Your task to perform on an android device: Open CNN.com Image 0: 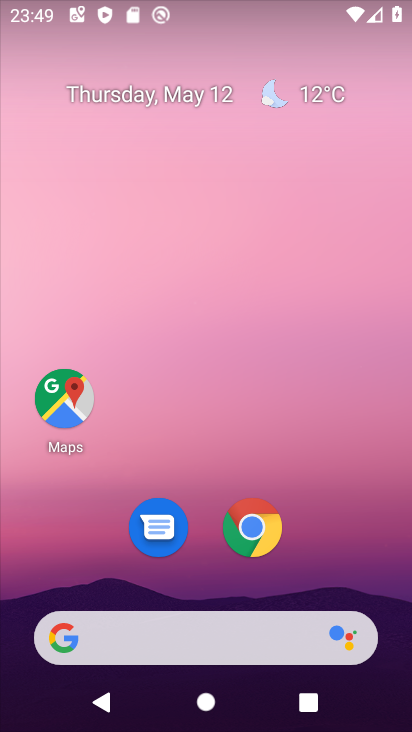
Step 0: press home button
Your task to perform on an android device: Open CNN.com Image 1: 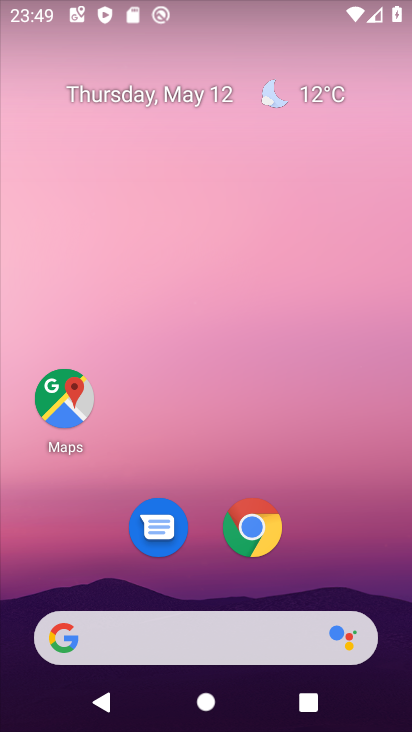
Step 1: click (208, 652)
Your task to perform on an android device: Open CNN.com Image 2: 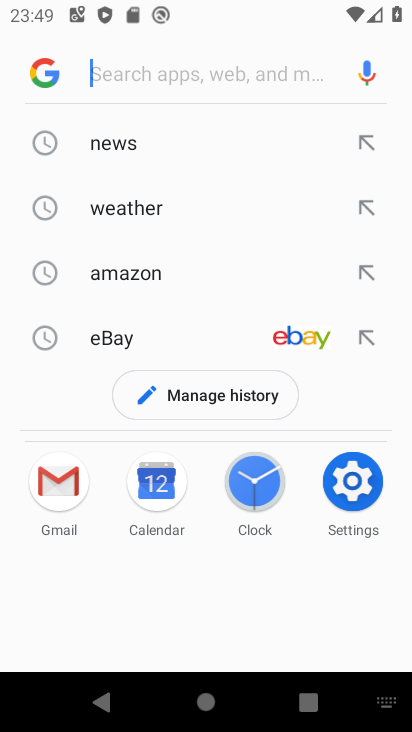
Step 2: click (149, 58)
Your task to perform on an android device: Open CNN.com Image 3: 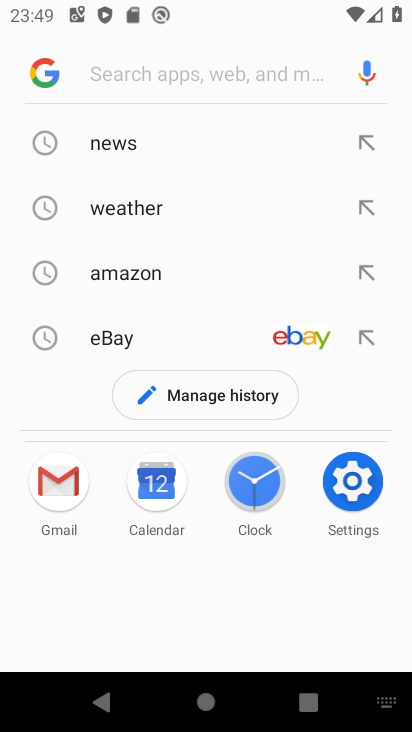
Step 3: click (149, 58)
Your task to perform on an android device: Open CNN.com Image 4: 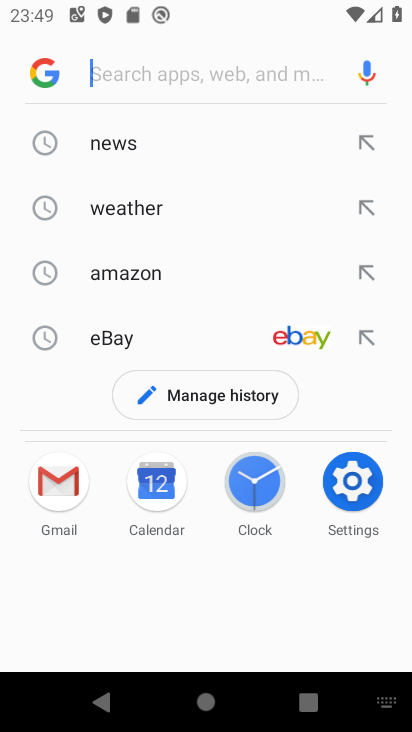
Step 4: press home button
Your task to perform on an android device: Open CNN.com Image 5: 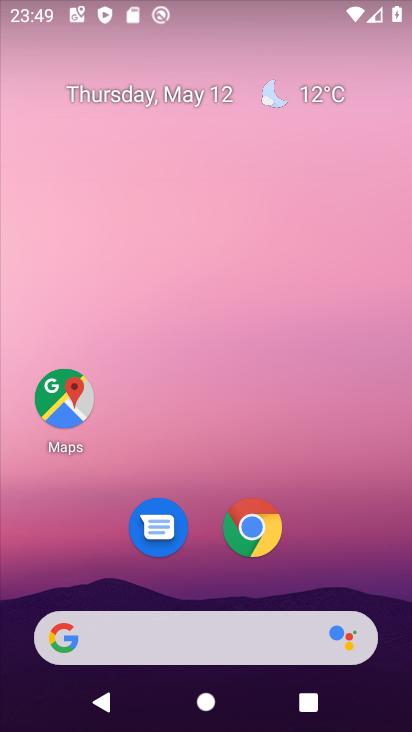
Step 5: click (257, 524)
Your task to perform on an android device: Open CNN.com Image 6: 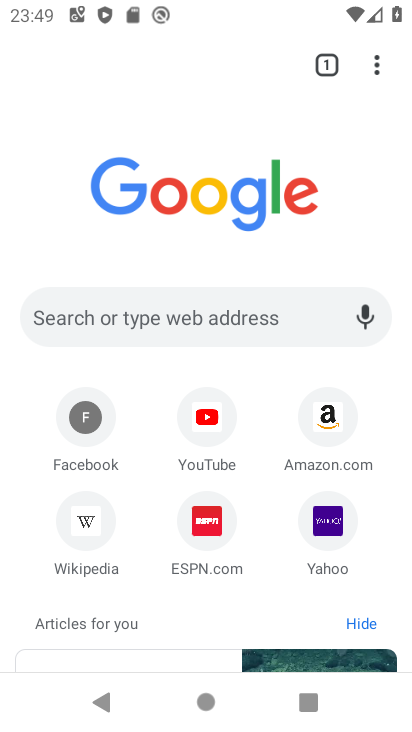
Step 6: click (163, 308)
Your task to perform on an android device: Open CNN.com Image 7: 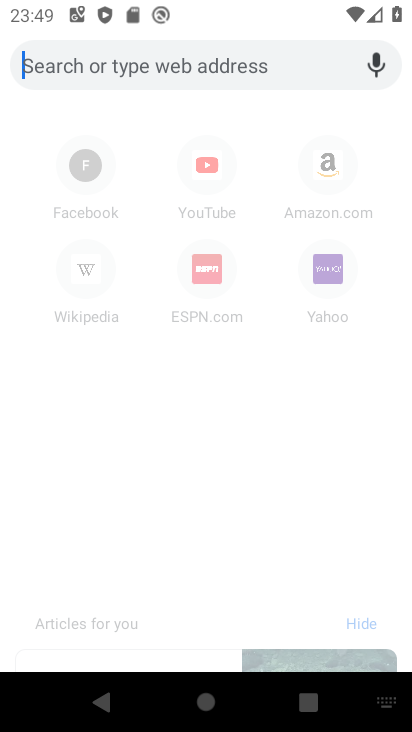
Step 7: click (164, 68)
Your task to perform on an android device: Open CNN.com Image 8: 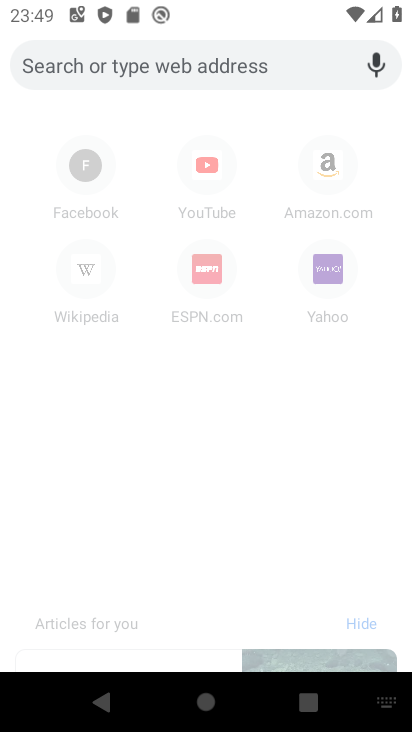
Step 8: click (164, 68)
Your task to perform on an android device: Open CNN.com Image 9: 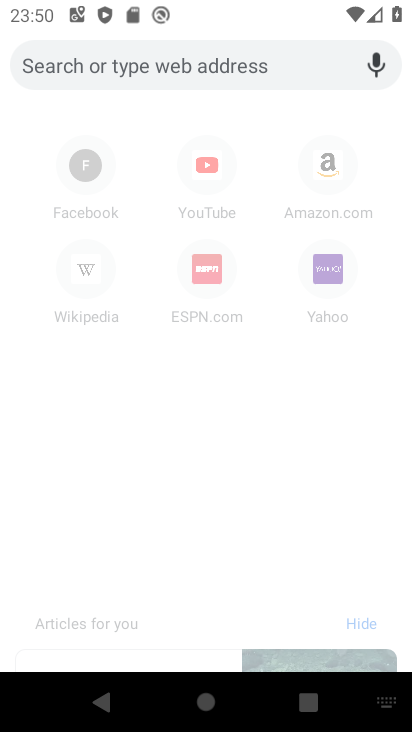
Step 9: type "CNN.com"
Your task to perform on an android device: Open CNN.com Image 10: 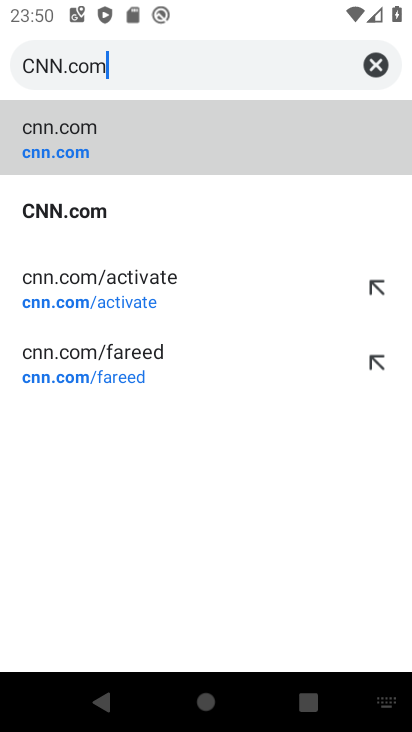
Step 10: type ""
Your task to perform on an android device: Open CNN.com Image 11: 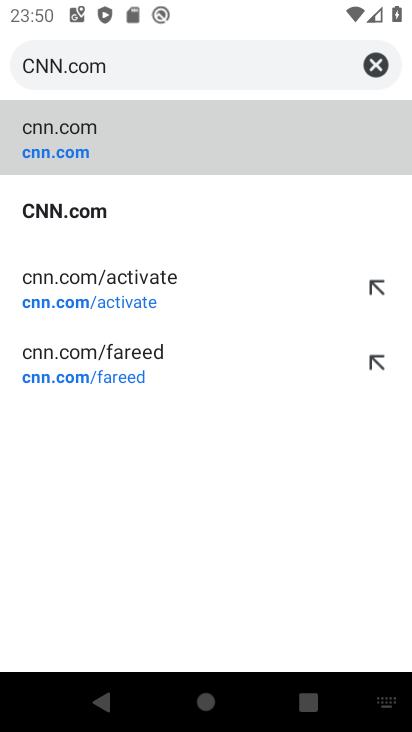
Step 11: click (36, 214)
Your task to perform on an android device: Open CNN.com Image 12: 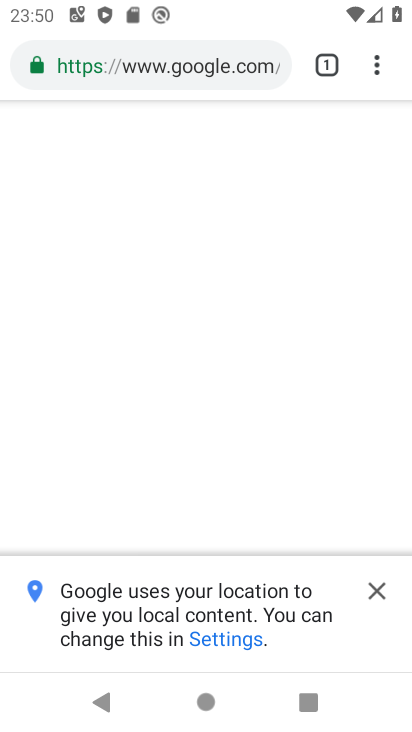
Step 12: click (373, 585)
Your task to perform on an android device: Open CNN.com Image 13: 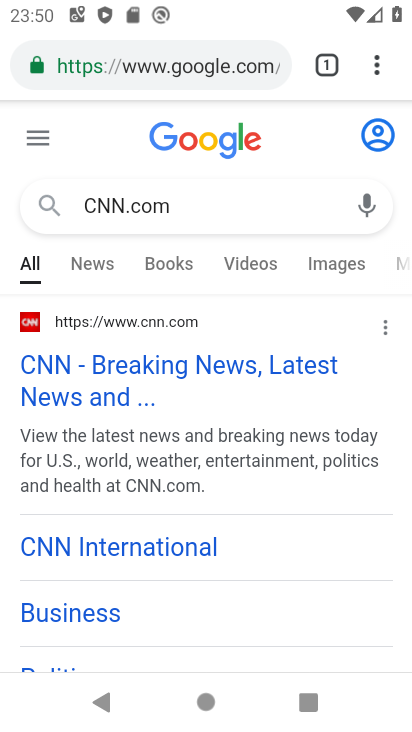
Step 13: click (85, 368)
Your task to perform on an android device: Open CNN.com Image 14: 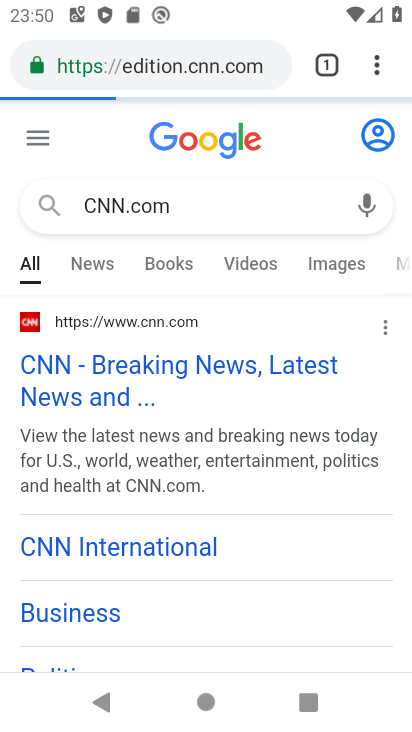
Step 14: task complete